Your task to perform on an android device: change the clock display to digital Image 0: 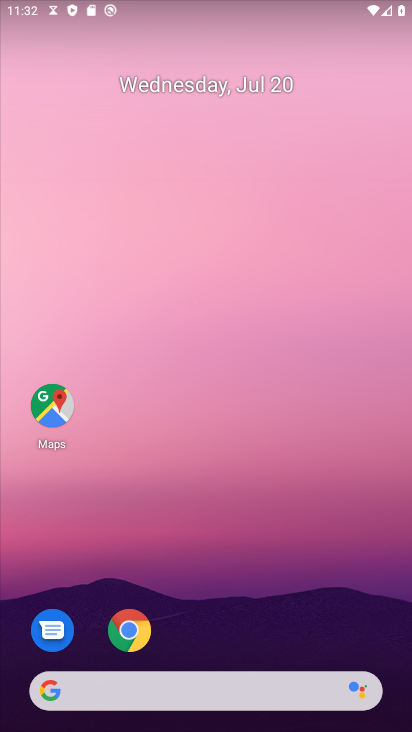
Step 0: click (111, 678)
Your task to perform on an android device: change the clock display to digital Image 1: 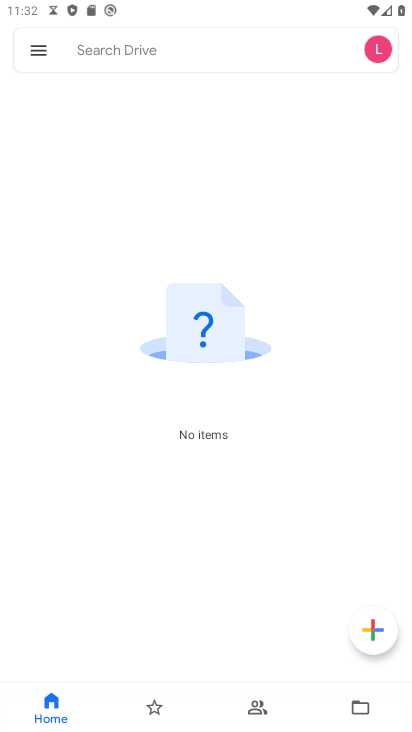
Step 1: press home button
Your task to perform on an android device: change the clock display to digital Image 2: 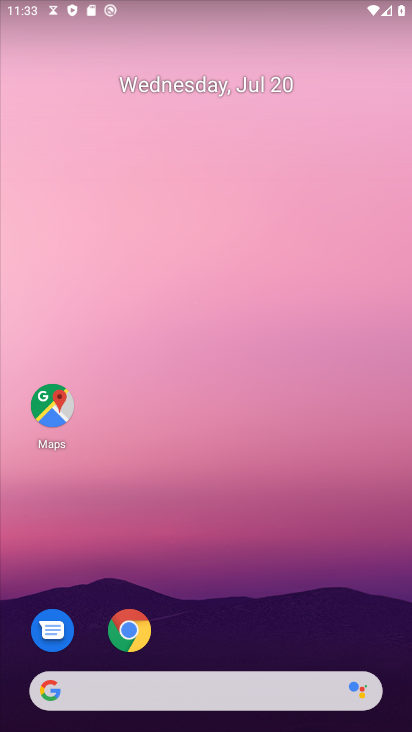
Step 2: drag from (19, 702) to (269, 230)
Your task to perform on an android device: change the clock display to digital Image 3: 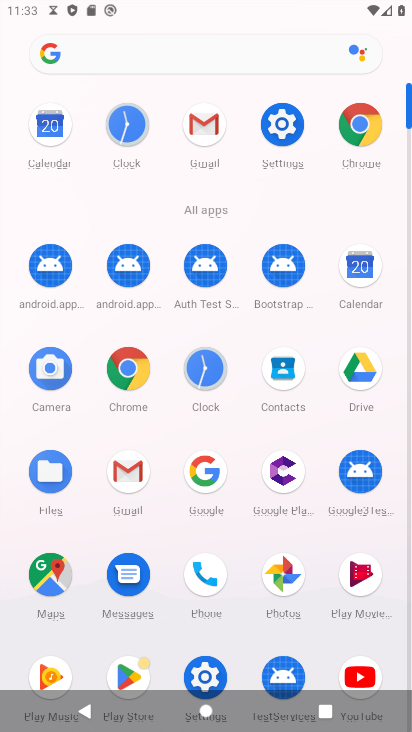
Step 3: click (200, 670)
Your task to perform on an android device: change the clock display to digital Image 4: 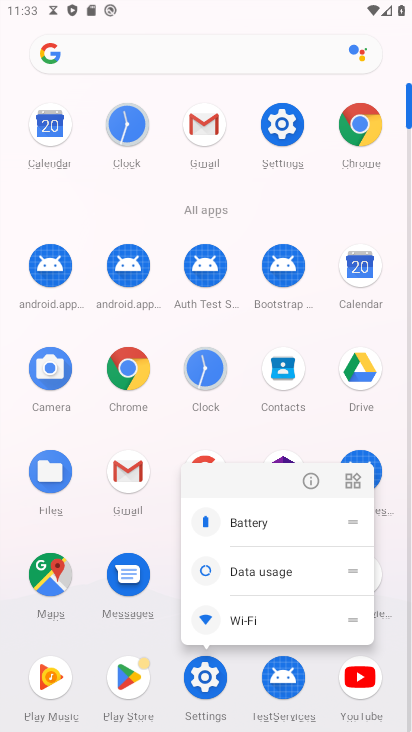
Step 4: click (213, 675)
Your task to perform on an android device: change the clock display to digital Image 5: 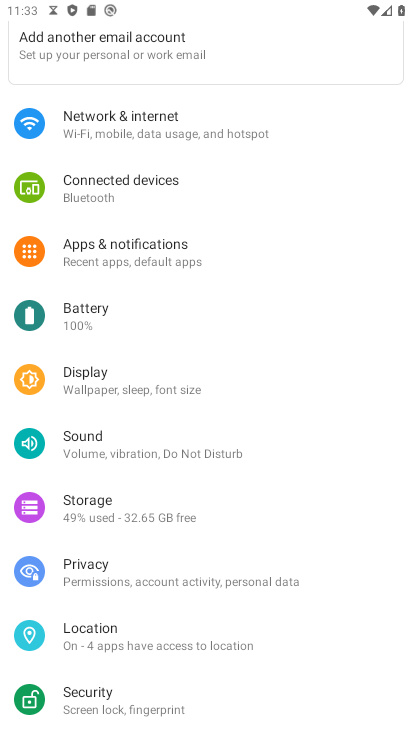
Step 5: press home button
Your task to perform on an android device: change the clock display to digital Image 6: 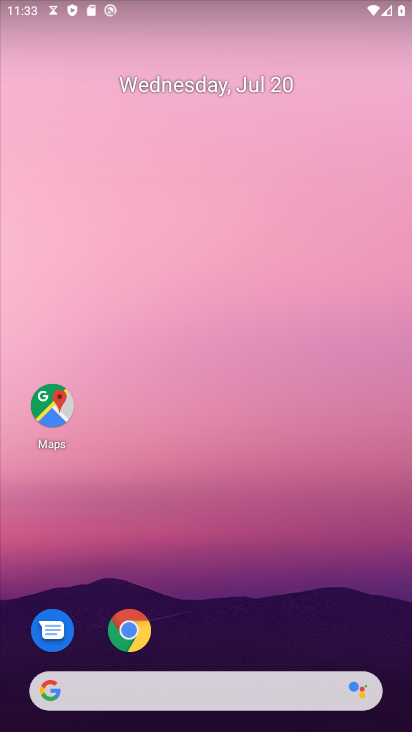
Step 6: drag from (56, 617) to (295, 150)
Your task to perform on an android device: change the clock display to digital Image 7: 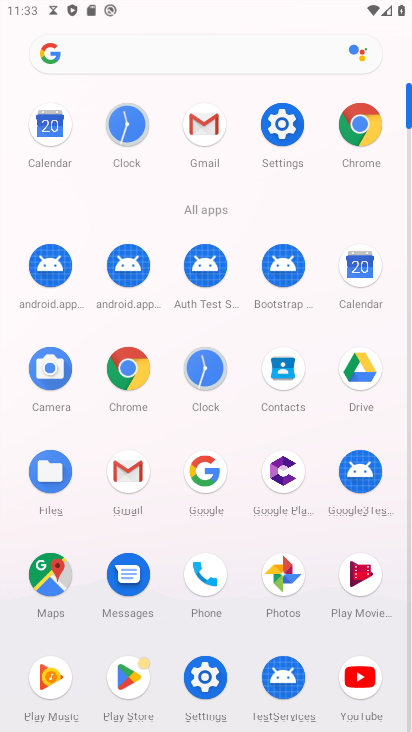
Step 7: click (209, 384)
Your task to perform on an android device: change the clock display to digital Image 8: 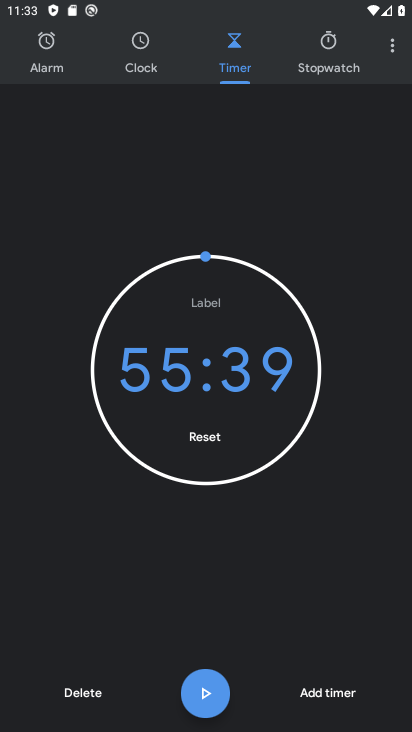
Step 8: task complete